Your task to perform on an android device: turn off translation in the chrome app Image 0: 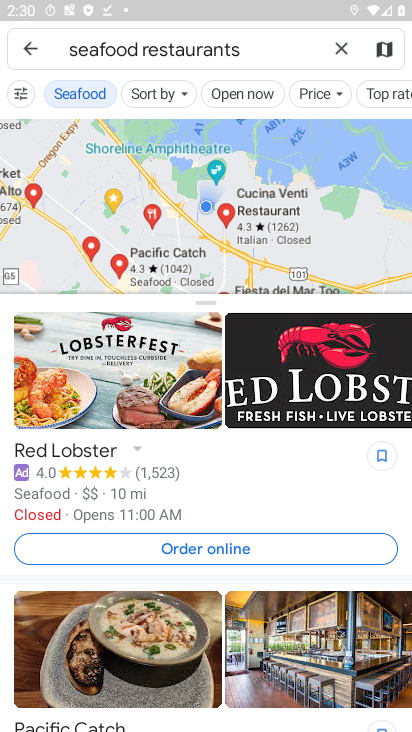
Step 0: press home button
Your task to perform on an android device: turn off translation in the chrome app Image 1: 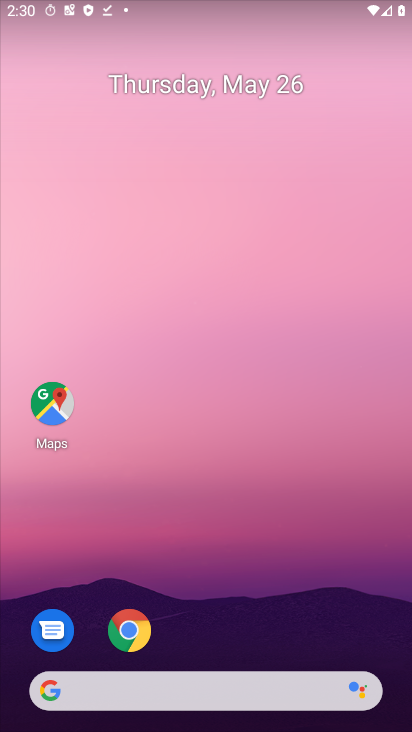
Step 1: click (140, 642)
Your task to perform on an android device: turn off translation in the chrome app Image 2: 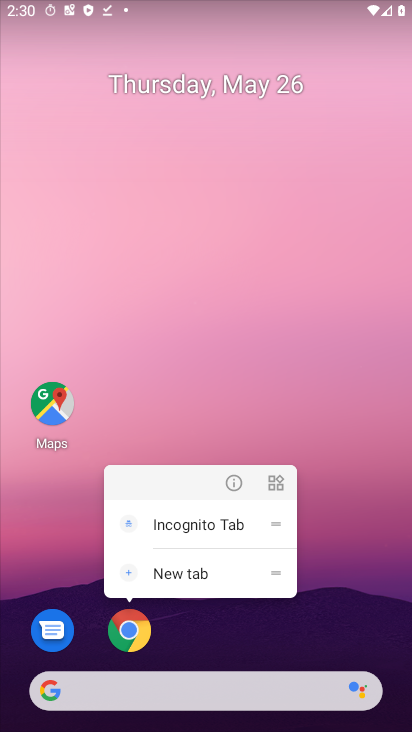
Step 2: click (139, 641)
Your task to perform on an android device: turn off translation in the chrome app Image 3: 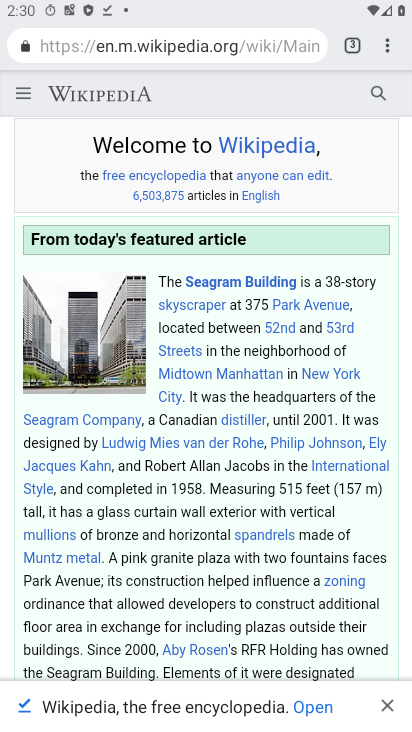
Step 3: click (397, 37)
Your task to perform on an android device: turn off translation in the chrome app Image 4: 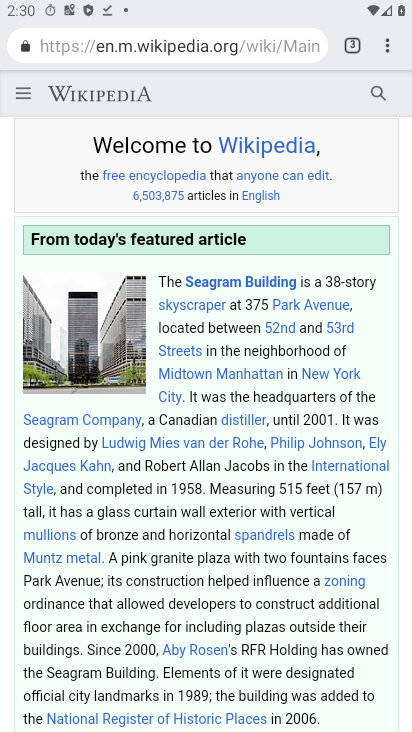
Step 4: click (389, 52)
Your task to perform on an android device: turn off translation in the chrome app Image 5: 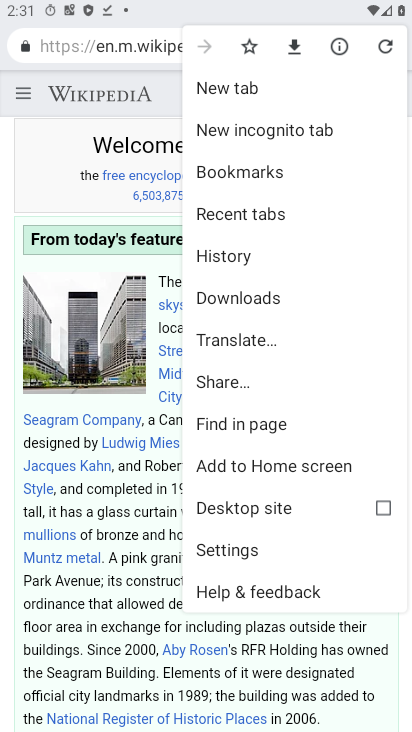
Step 5: click (226, 548)
Your task to perform on an android device: turn off translation in the chrome app Image 6: 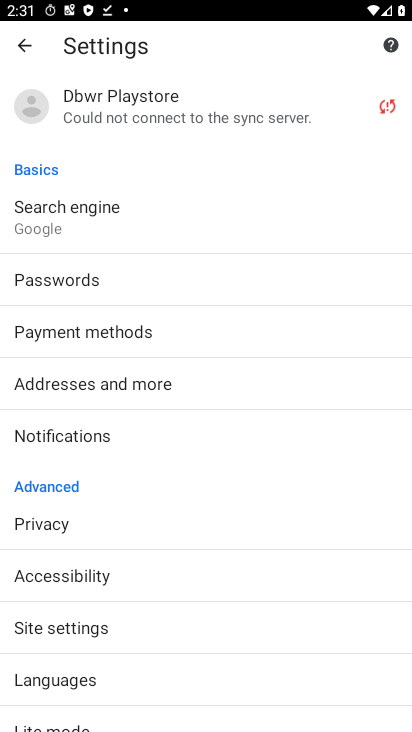
Step 6: click (103, 677)
Your task to perform on an android device: turn off translation in the chrome app Image 7: 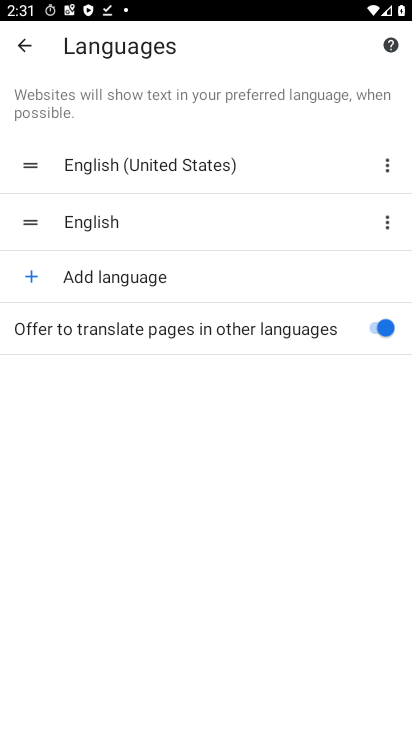
Step 7: click (385, 321)
Your task to perform on an android device: turn off translation in the chrome app Image 8: 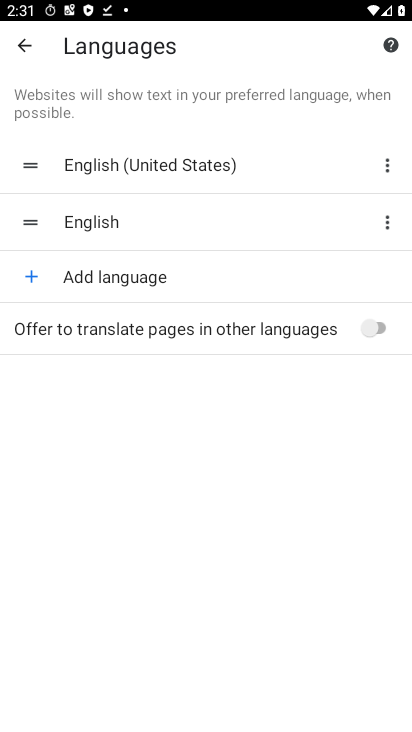
Step 8: task complete